Your task to perform on an android device: change text size in settings app Image 0: 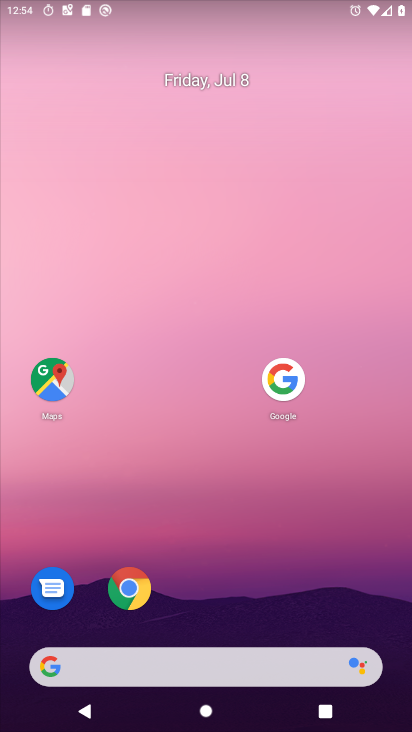
Step 0: press home button
Your task to perform on an android device: change text size in settings app Image 1: 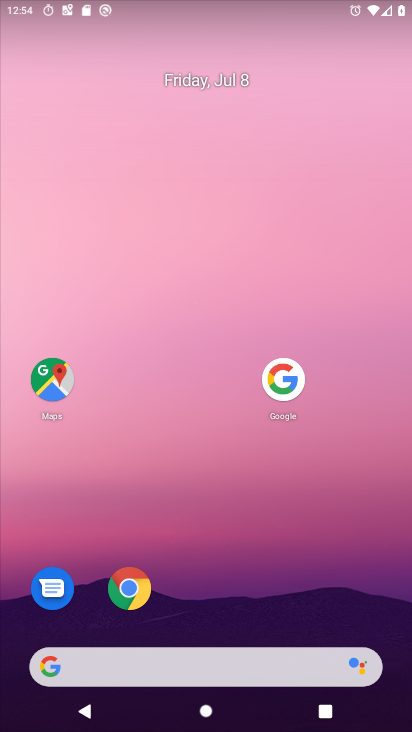
Step 1: drag from (162, 662) to (359, 10)
Your task to perform on an android device: change text size in settings app Image 2: 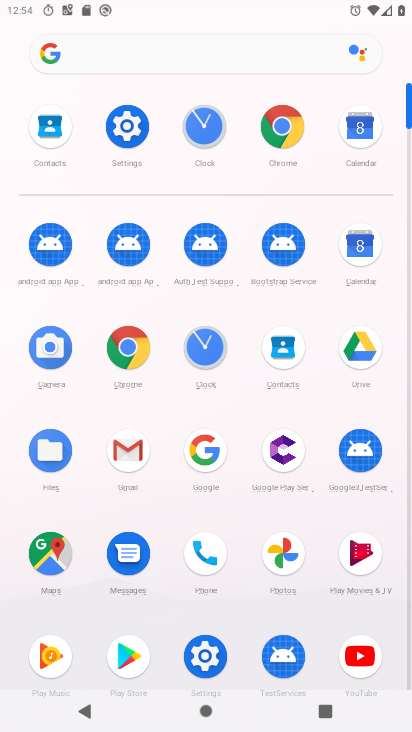
Step 2: click (137, 121)
Your task to perform on an android device: change text size in settings app Image 3: 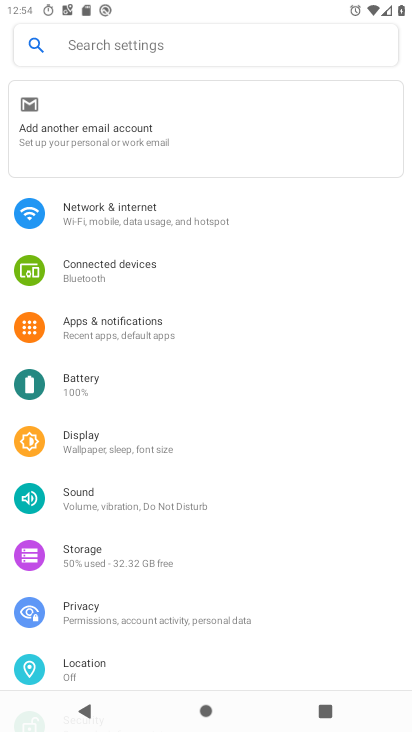
Step 3: click (136, 448)
Your task to perform on an android device: change text size in settings app Image 4: 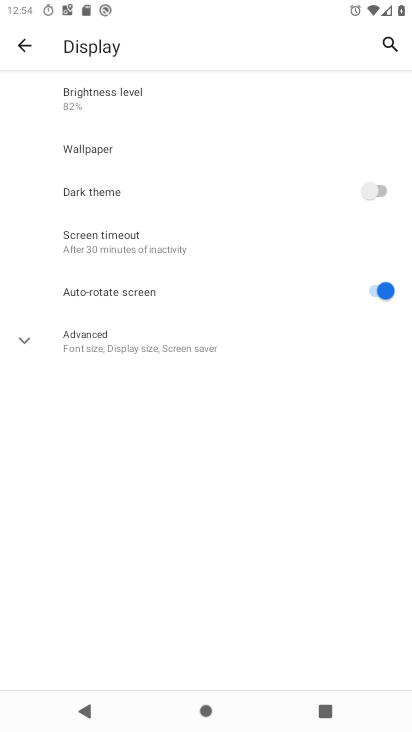
Step 4: click (128, 340)
Your task to perform on an android device: change text size in settings app Image 5: 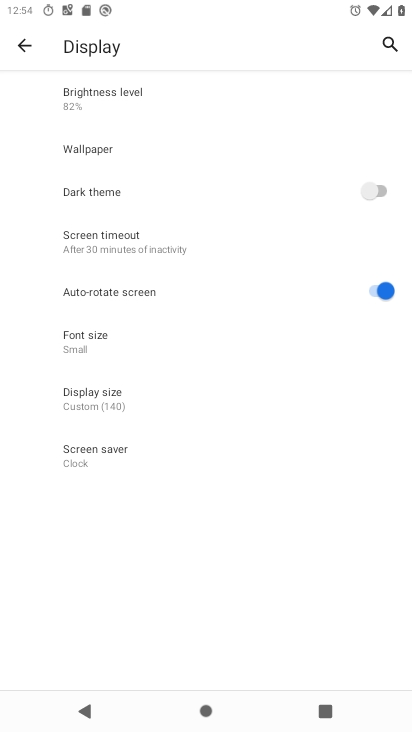
Step 5: click (106, 339)
Your task to perform on an android device: change text size in settings app Image 6: 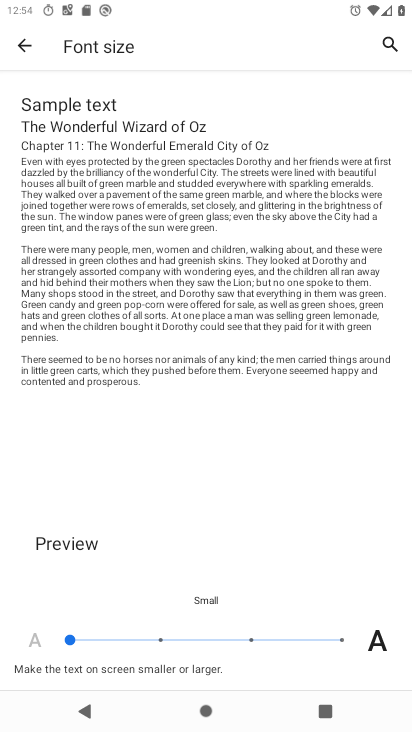
Step 6: click (158, 636)
Your task to perform on an android device: change text size in settings app Image 7: 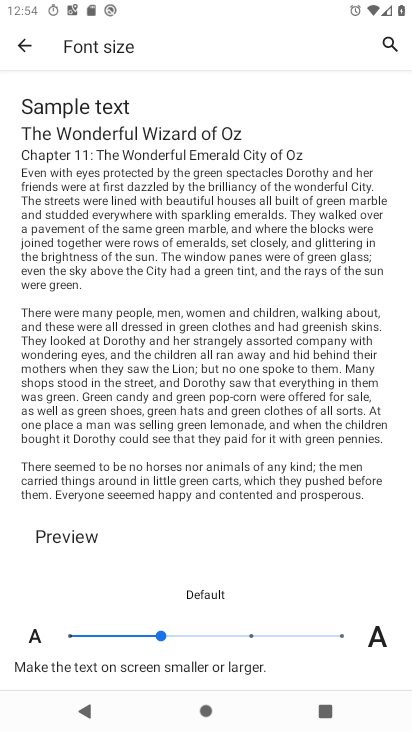
Step 7: task complete